Your task to perform on an android device: turn off airplane mode Image 0: 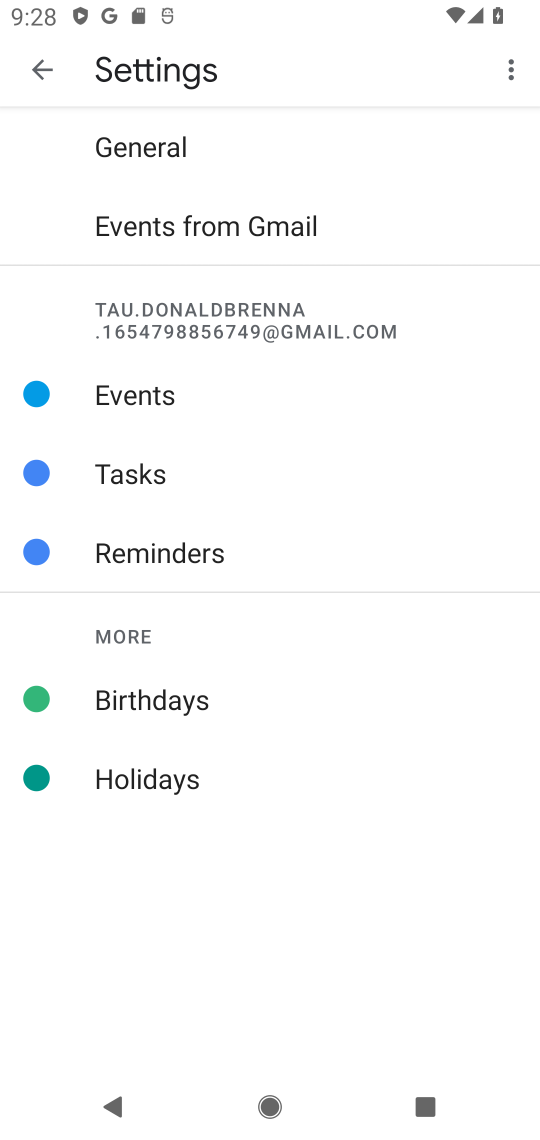
Step 0: press home button
Your task to perform on an android device: turn off airplane mode Image 1: 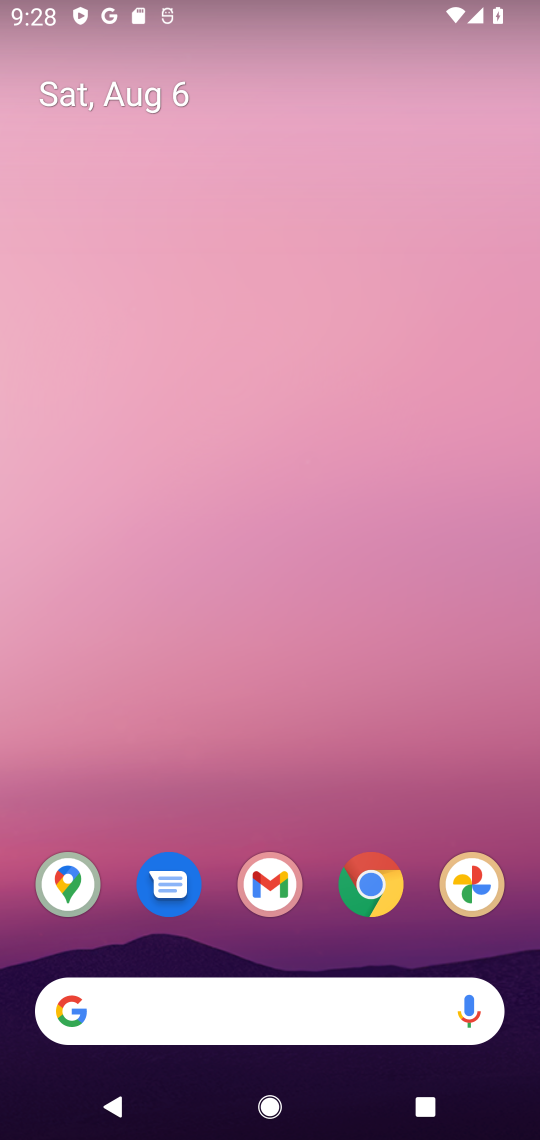
Step 1: drag from (331, 936) to (324, 145)
Your task to perform on an android device: turn off airplane mode Image 2: 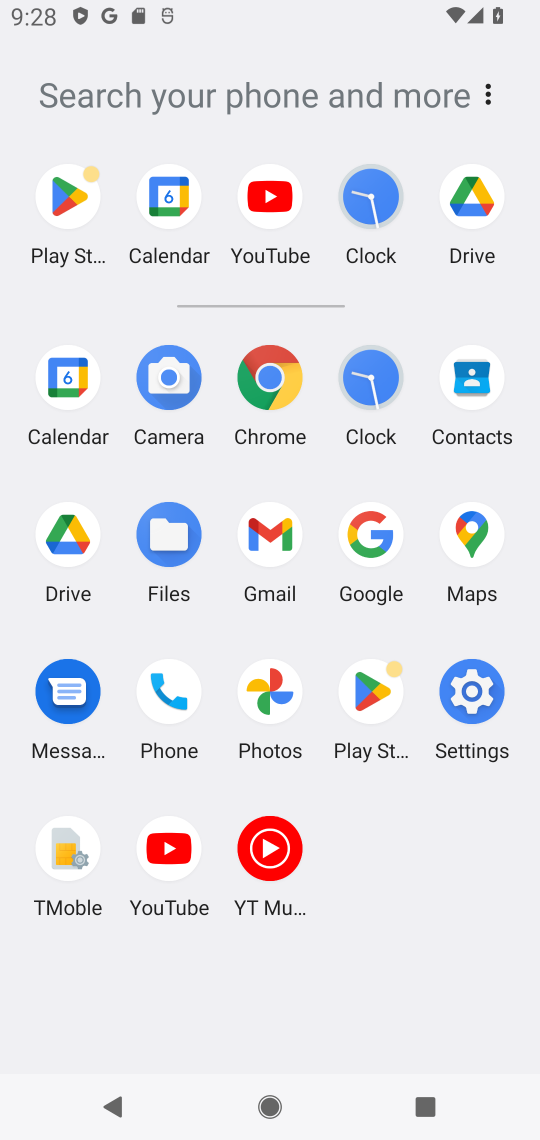
Step 2: click (470, 693)
Your task to perform on an android device: turn off airplane mode Image 3: 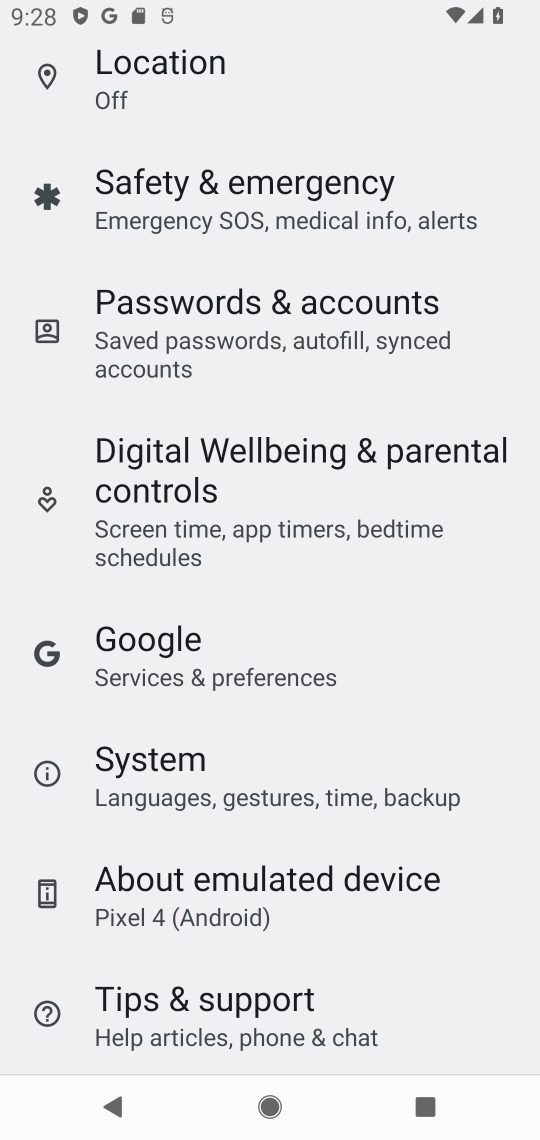
Step 3: drag from (492, 317) to (482, 783)
Your task to perform on an android device: turn off airplane mode Image 4: 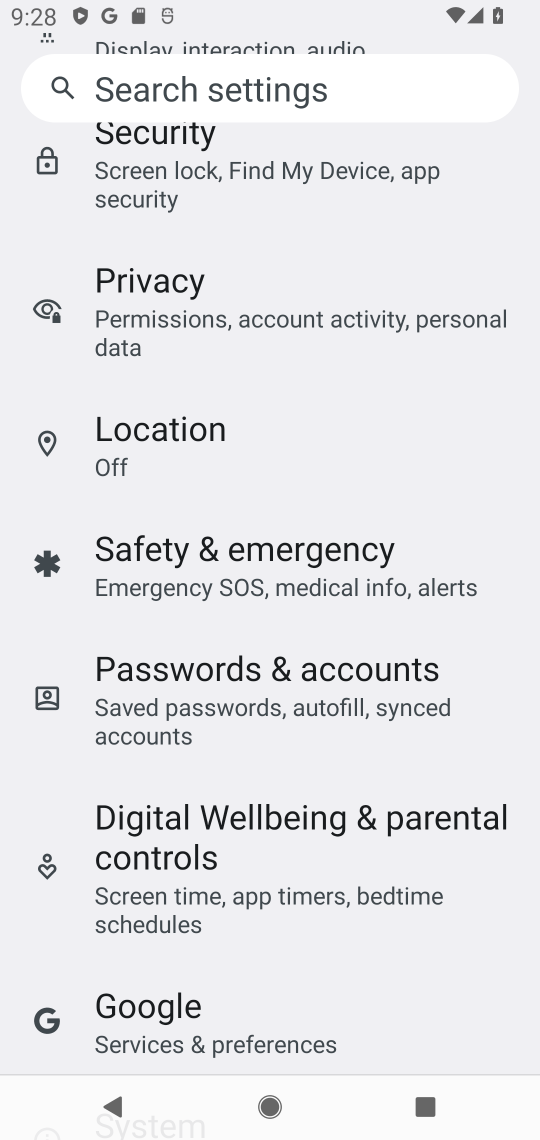
Step 4: drag from (462, 228) to (471, 733)
Your task to perform on an android device: turn off airplane mode Image 5: 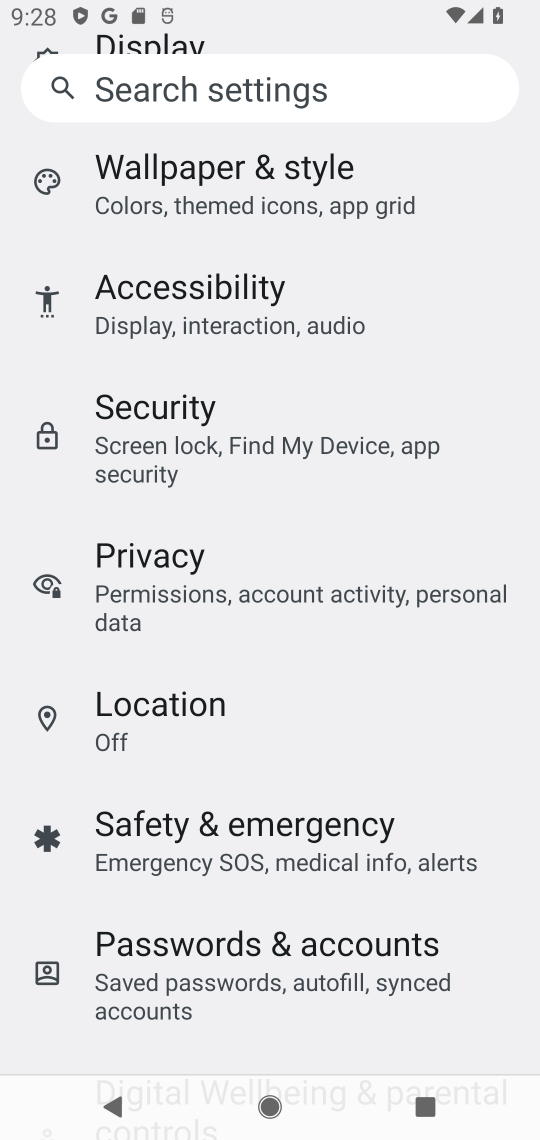
Step 5: drag from (479, 222) to (446, 783)
Your task to perform on an android device: turn off airplane mode Image 6: 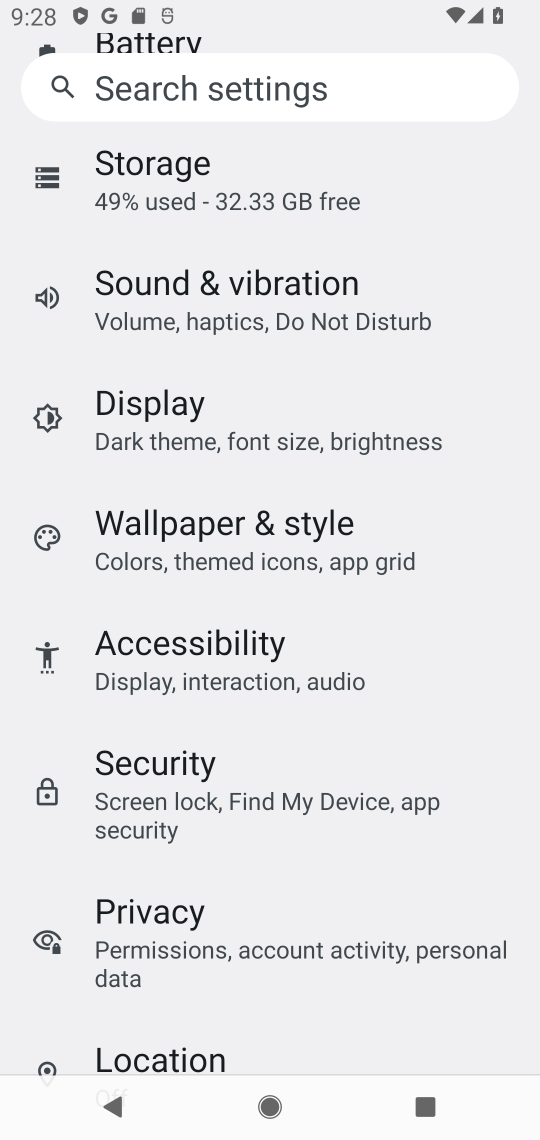
Step 6: drag from (436, 256) to (458, 863)
Your task to perform on an android device: turn off airplane mode Image 7: 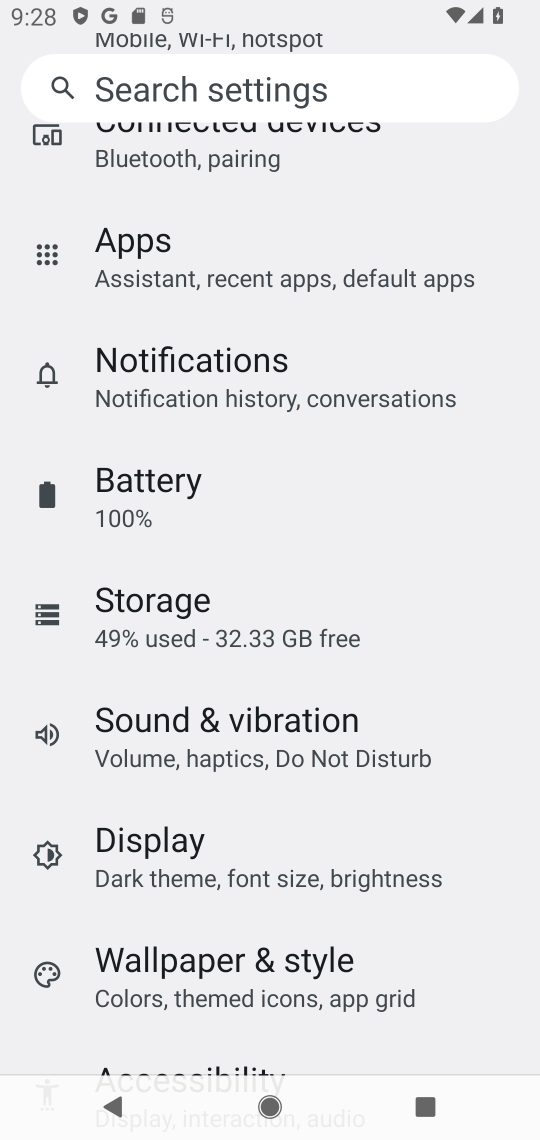
Step 7: drag from (495, 196) to (494, 718)
Your task to perform on an android device: turn off airplane mode Image 8: 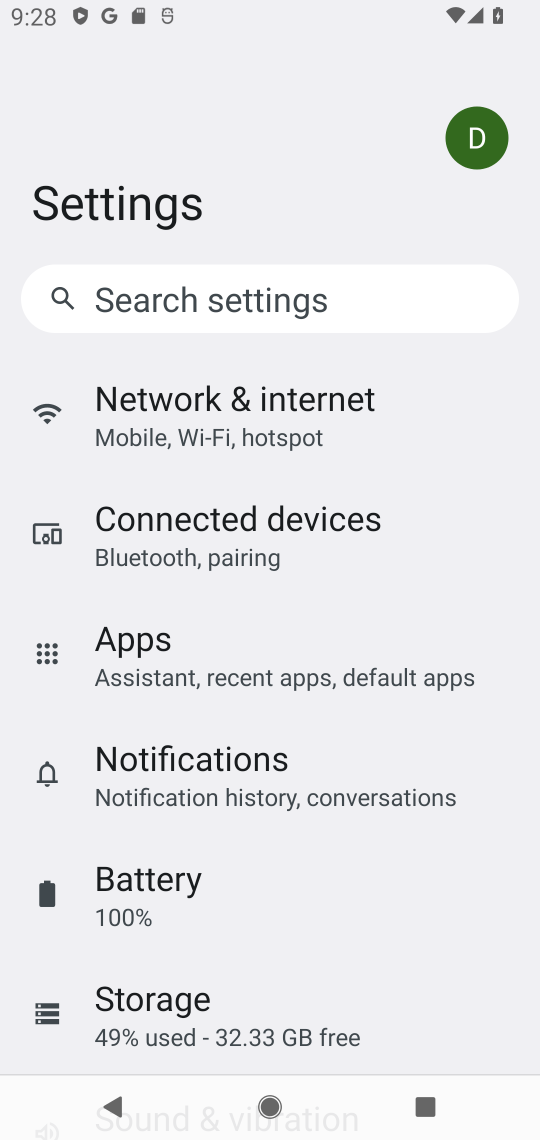
Step 8: click (171, 392)
Your task to perform on an android device: turn off airplane mode Image 9: 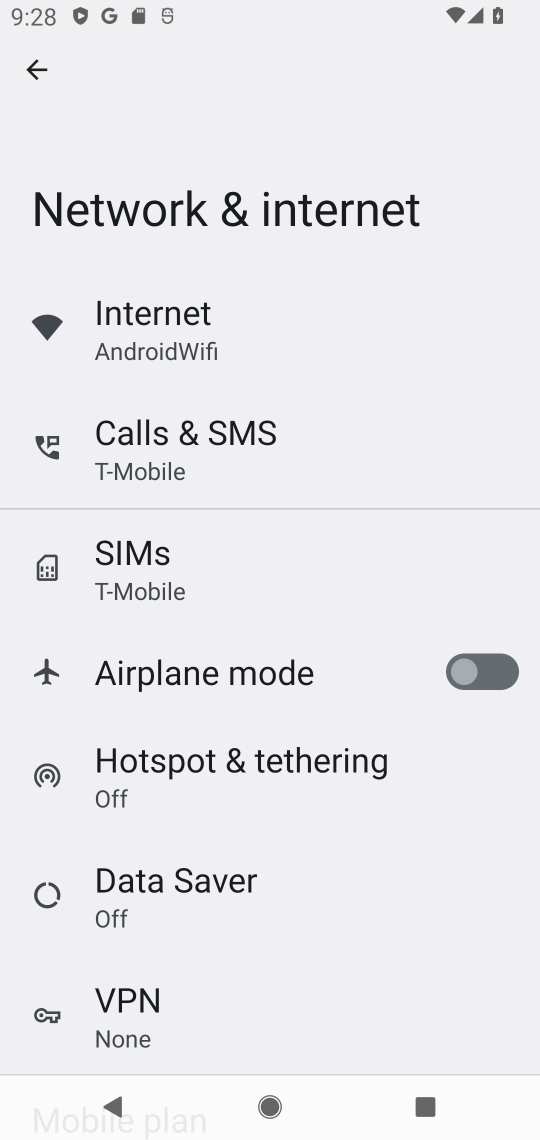
Step 9: task complete